Your task to perform on an android device: When is my next appointment? Image 0: 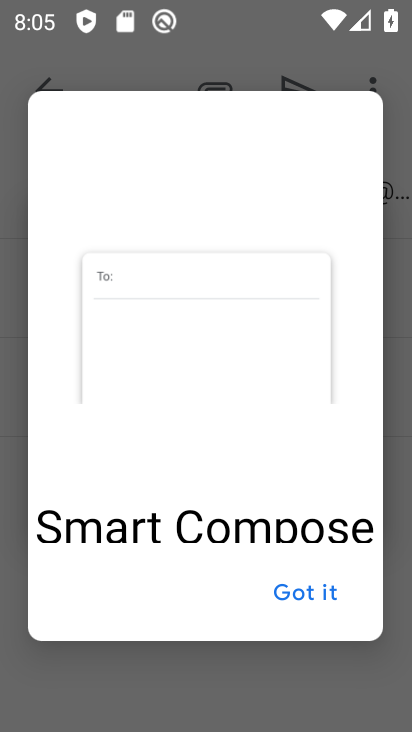
Step 0: press home button
Your task to perform on an android device: When is my next appointment? Image 1: 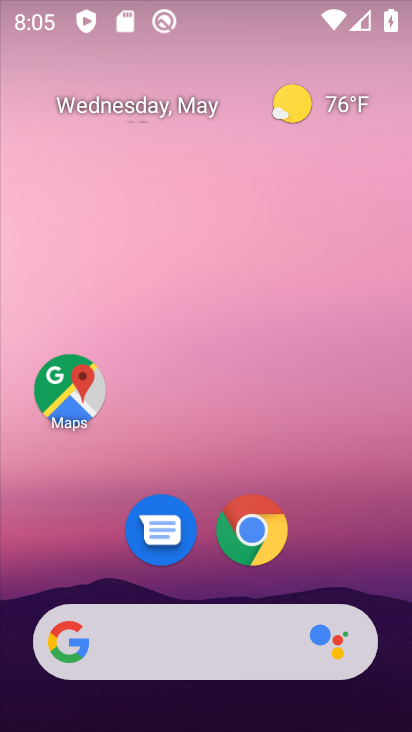
Step 1: drag from (386, 562) to (360, 177)
Your task to perform on an android device: When is my next appointment? Image 2: 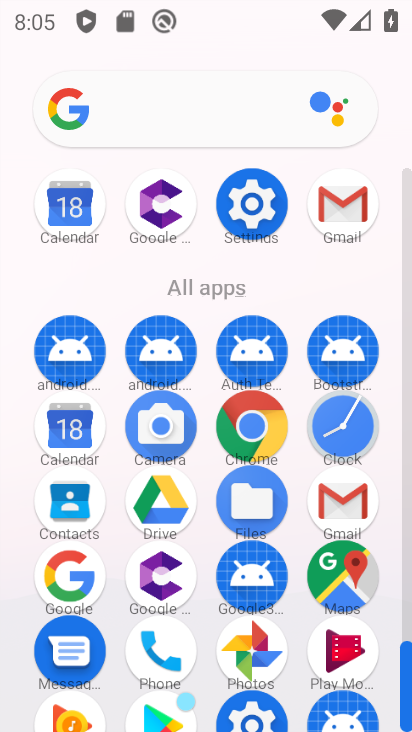
Step 2: click (53, 422)
Your task to perform on an android device: When is my next appointment? Image 3: 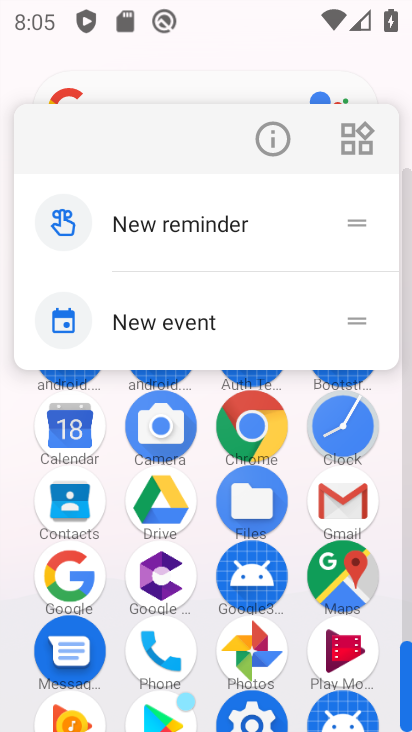
Step 3: click (60, 426)
Your task to perform on an android device: When is my next appointment? Image 4: 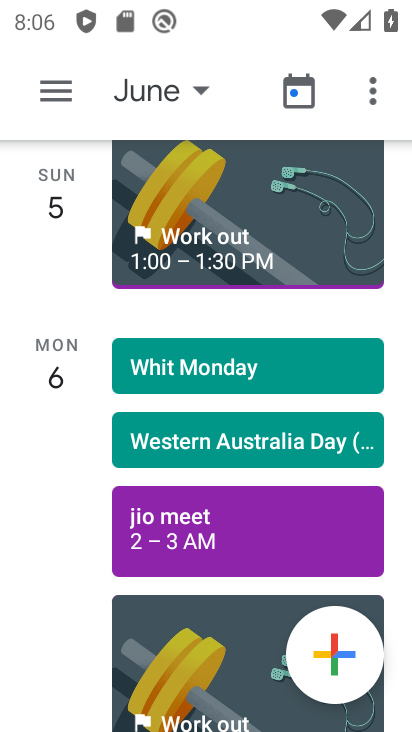
Step 4: task complete